Your task to perform on an android device: open a bookmark in the chrome app Image 0: 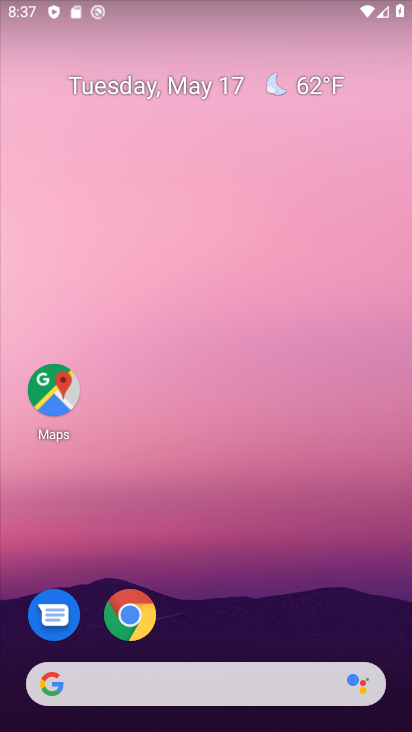
Step 0: click (129, 604)
Your task to perform on an android device: open a bookmark in the chrome app Image 1: 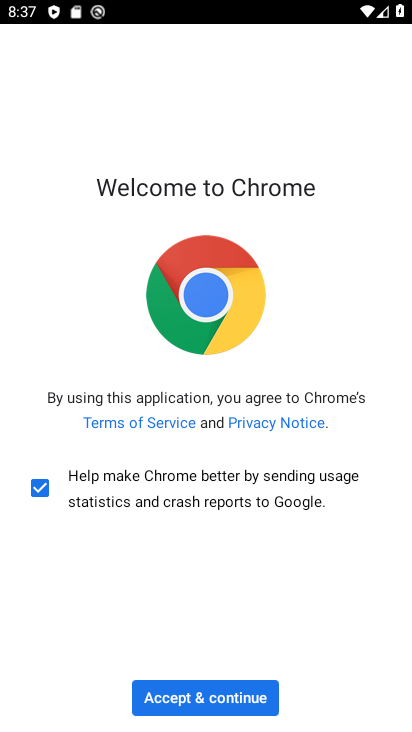
Step 1: click (244, 705)
Your task to perform on an android device: open a bookmark in the chrome app Image 2: 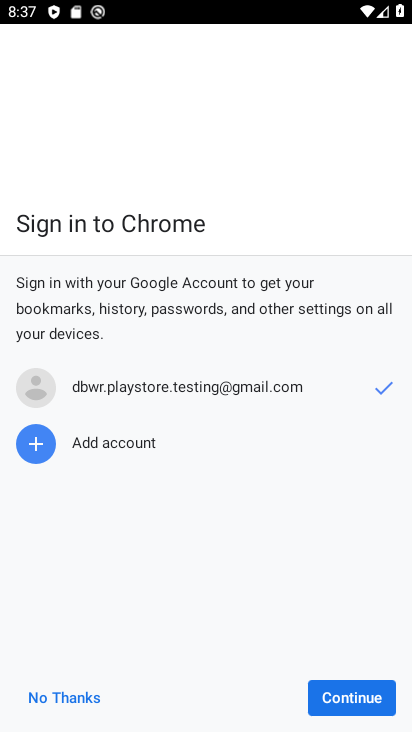
Step 2: click (346, 697)
Your task to perform on an android device: open a bookmark in the chrome app Image 3: 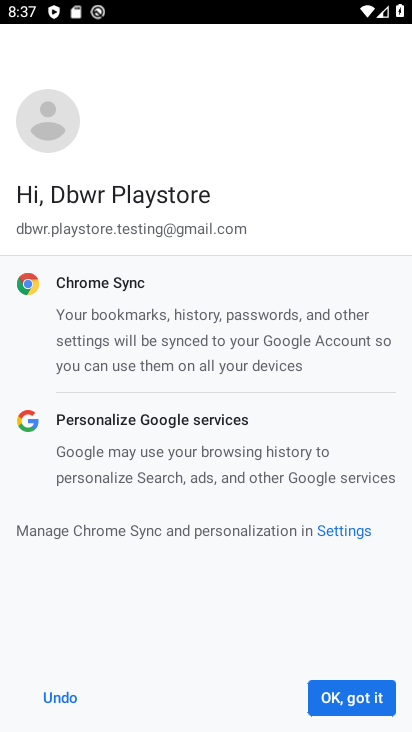
Step 3: click (347, 698)
Your task to perform on an android device: open a bookmark in the chrome app Image 4: 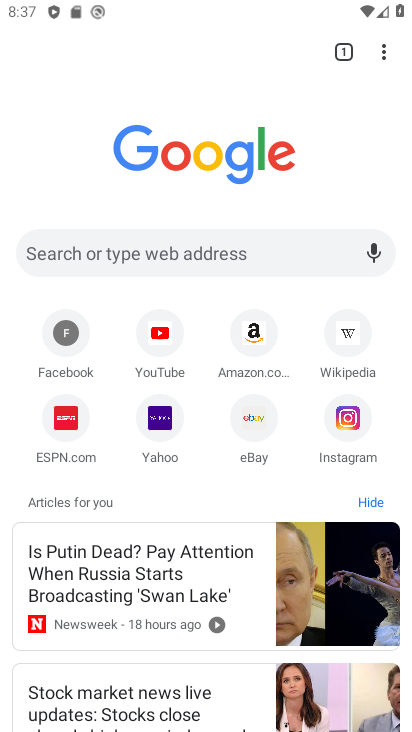
Step 4: click (386, 57)
Your task to perform on an android device: open a bookmark in the chrome app Image 5: 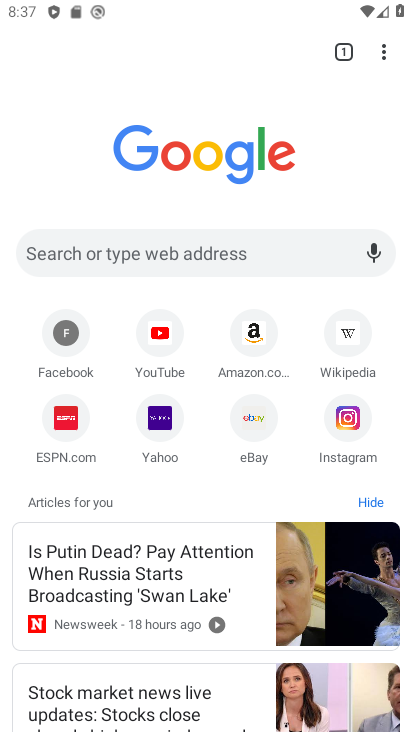
Step 5: click (386, 58)
Your task to perform on an android device: open a bookmark in the chrome app Image 6: 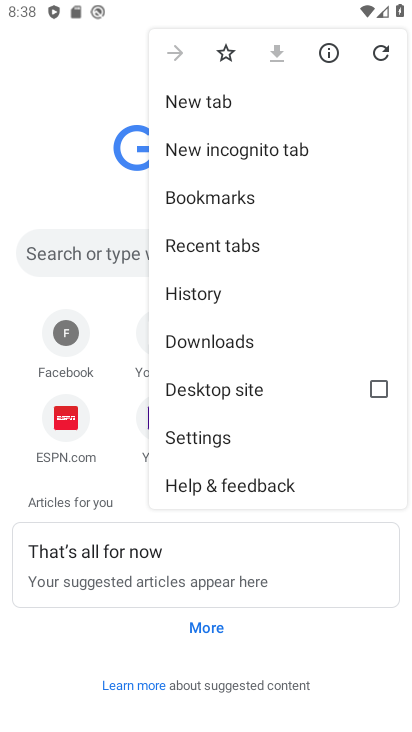
Step 6: click (241, 203)
Your task to perform on an android device: open a bookmark in the chrome app Image 7: 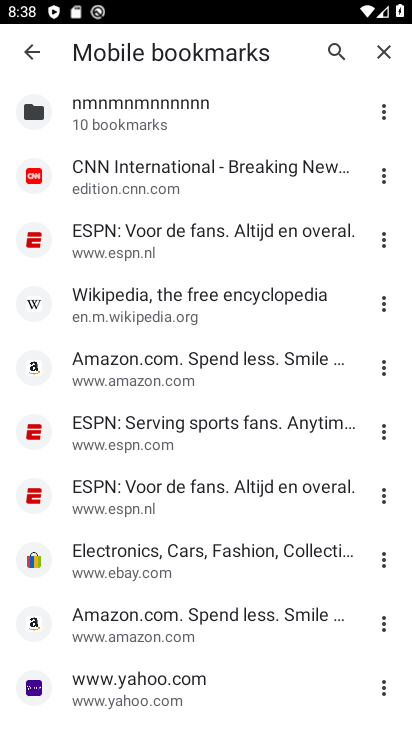
Step 7: click (137, 620)
Your task to perform on an android device: open a bookmark in the chrome app Image 8: 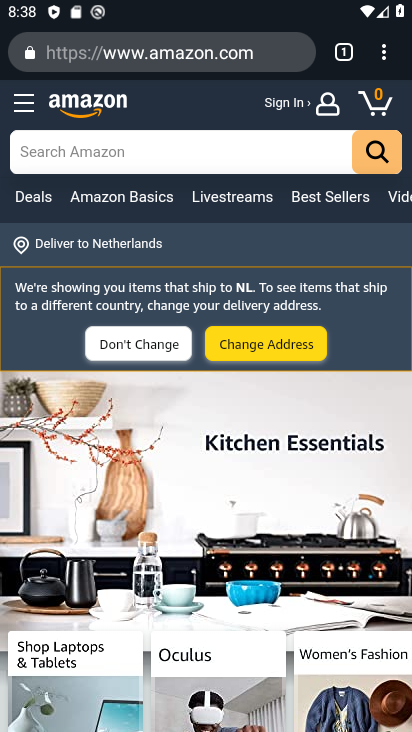
Step 8: task complete